Your task to perform on an android device: delete browsing data in the chrome app Image 0: 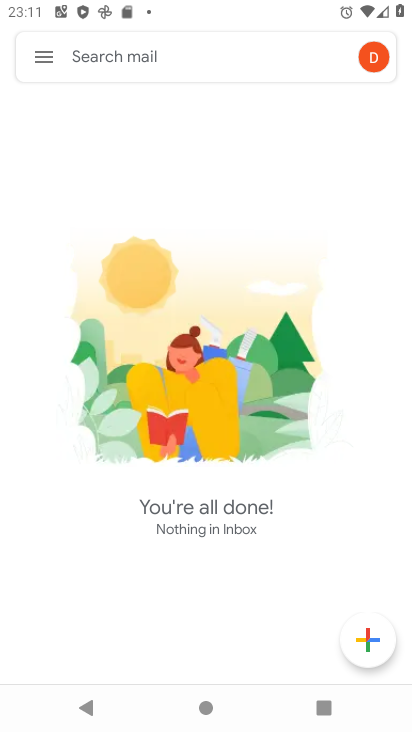
Step 0: press home button
Your task to perform on an android device: delete browsing data in the chrome app Image 1: 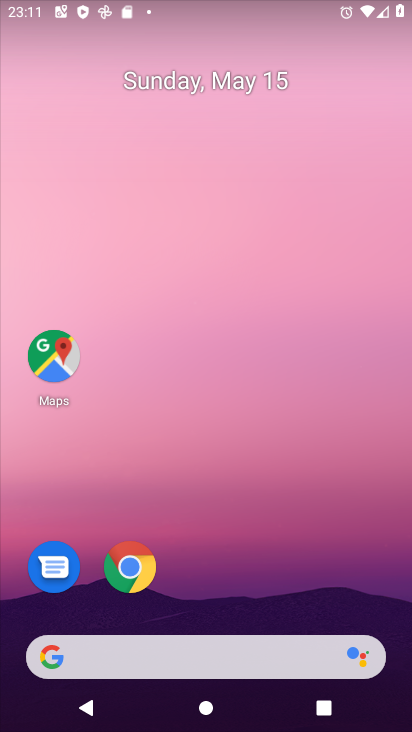
Step 1: click (119, 565)
Your task to perform on an android device: delete browsing data in the chrome app Image 2: 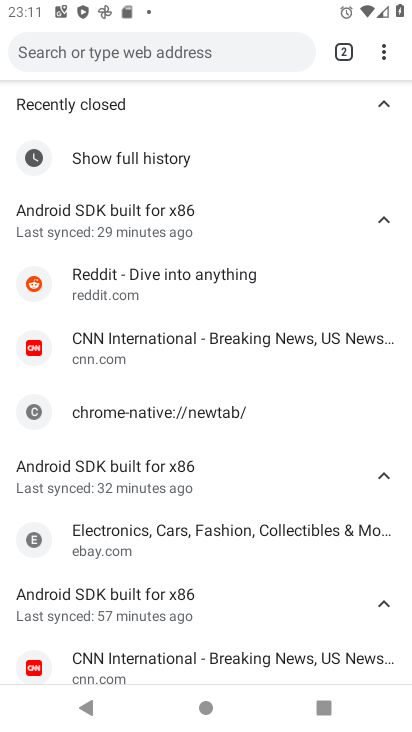
Step 2: click (385, 52)
Your task to perform on an android device: delete browsing data in the chrome app Image 3: 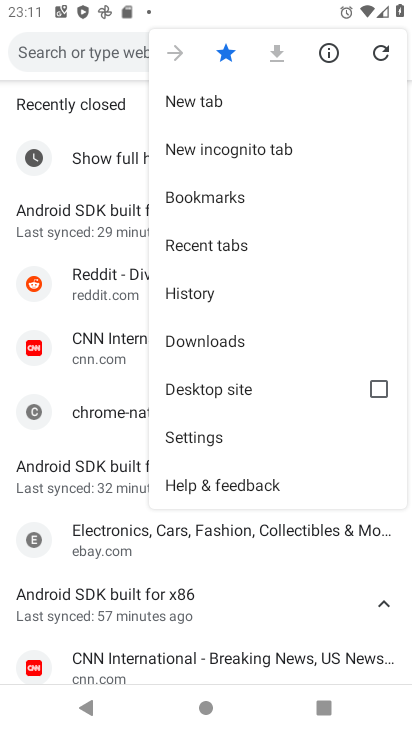
Step 3: click (216, 303)
Your task to perform on an android device: delete browsing data in the chrome app Image 4: 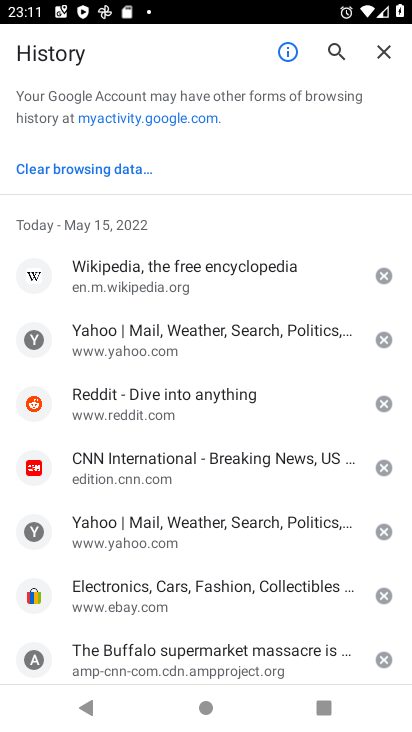
Step 4: click (98, 171)
Your task to perform on an android device: delete browsing data in the chrome app Image 5: 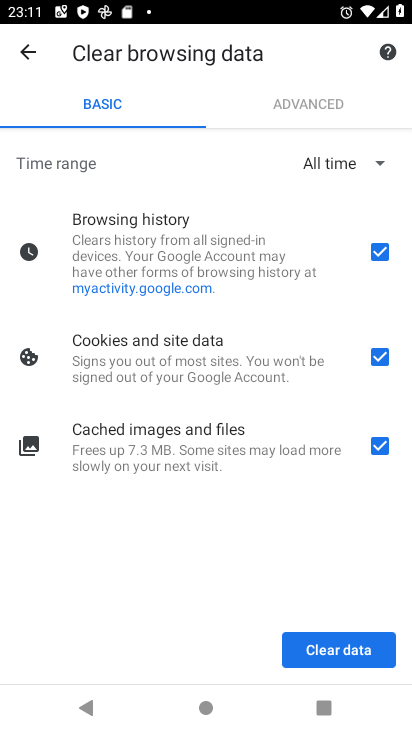
Step 5: click (361, 654)
Your task to perform on an android device: delete browsing data in the chrome app Image 6: 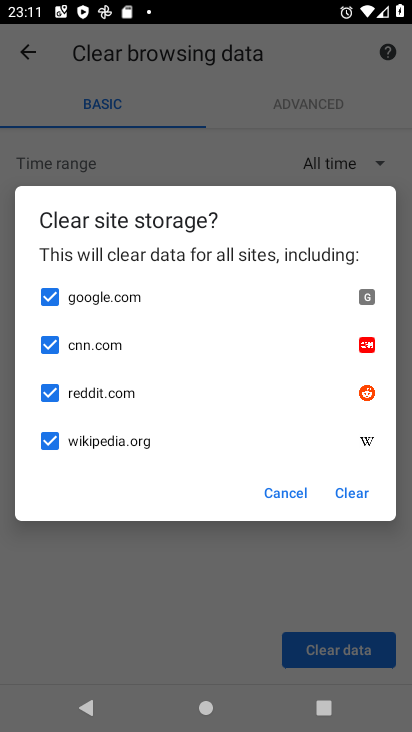
Step 6: click (349, 497)
Your task to perform on an android device: delete browsing data in the chrome app Image 7: 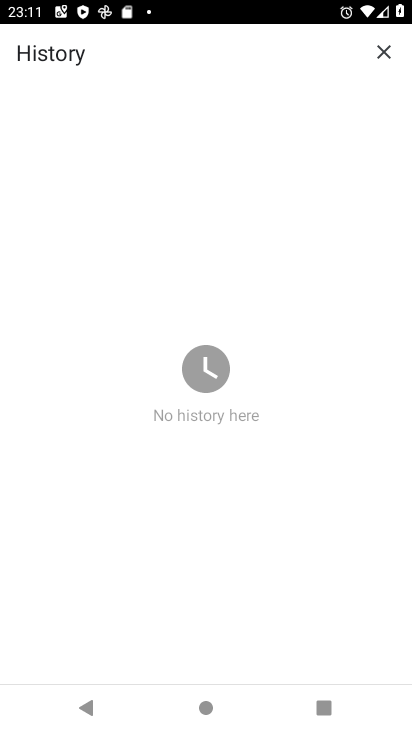
Step 7: task complete